Your task to perform on an android device: Open Android settings Image 0: 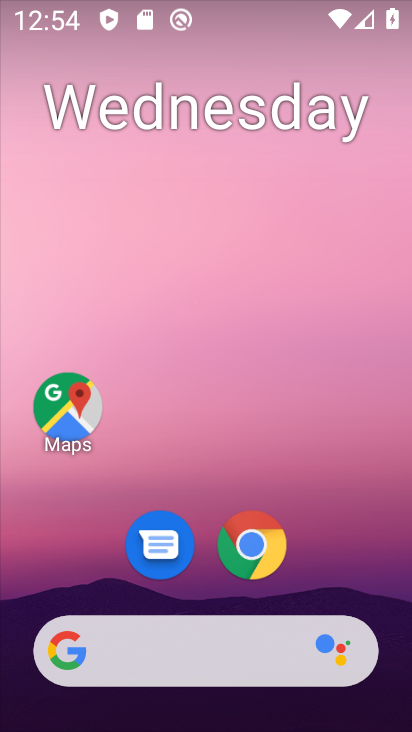
Step 0: drag from (221, 594) to (250, 272)
Your task to perform on an android device: Open Android settings Image 1: 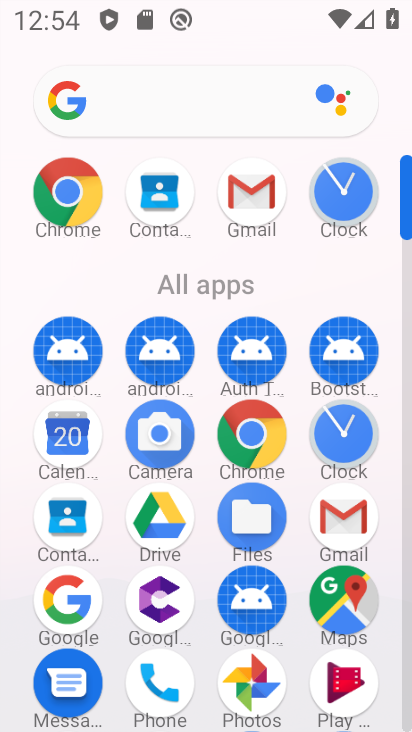
Step 1: drag from (214, 631) to (192, 282)
Your task to perform on an android device: Open Android settings Image 2: 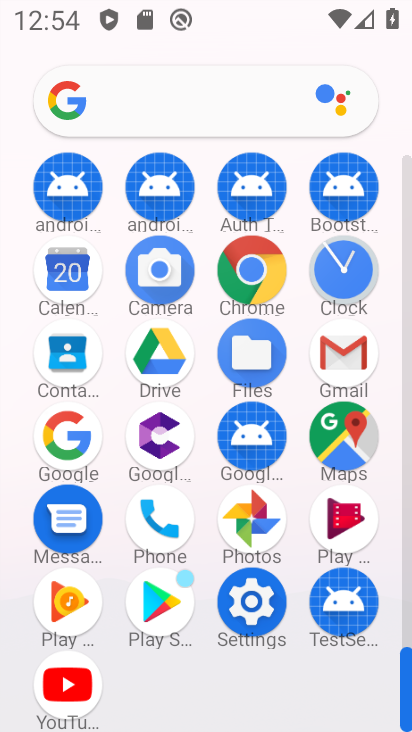
Step 2: click (252, 602)
Your task to perform on an android device: Open Android settings Image 3: 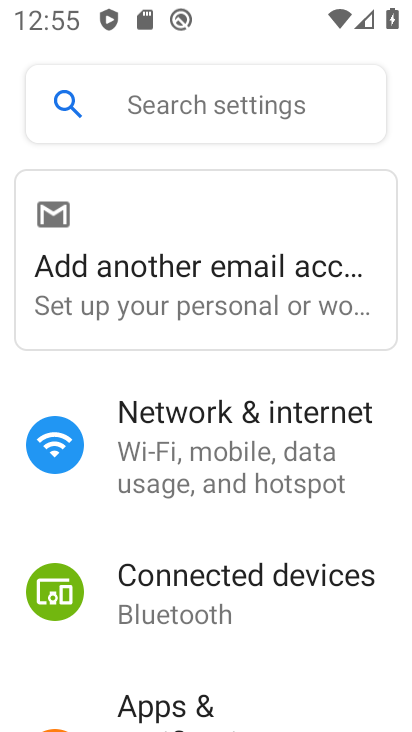
Step 3: drag from (252, 626) to (256, 274)
Your task to perform on an android device: Open Android settings Image 4: 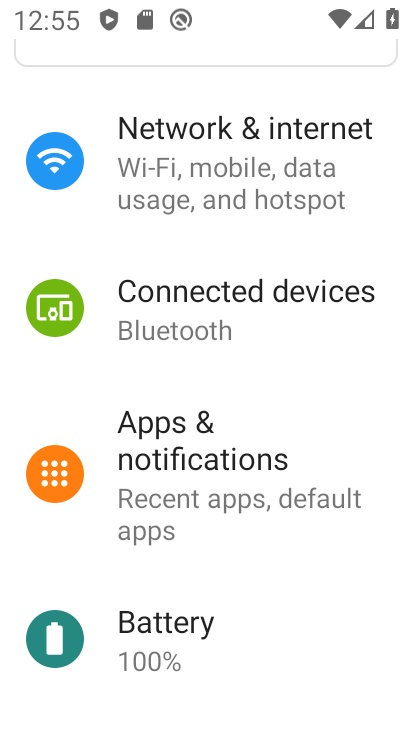
Step 4: drag from (213, 613) to (218, 345)
Your task to perform on an android device: Open Android settings Image 5: 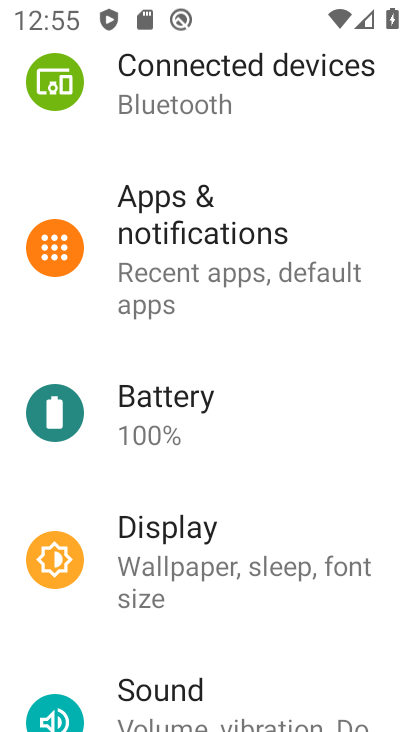
Step 5: drag from (245, 670) to (237, 416)
Your task to perform on an android device: Open Android settings Image 6: 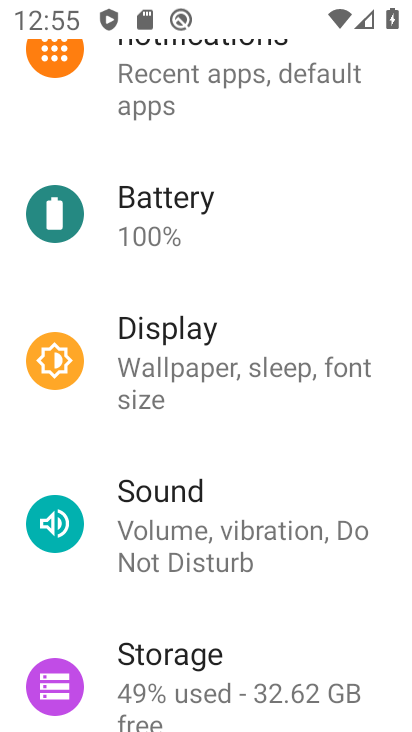
Step 6: drag from (249, 664) to (250, 373)
Your task to perform on an android device: Open Android settings Image 7: 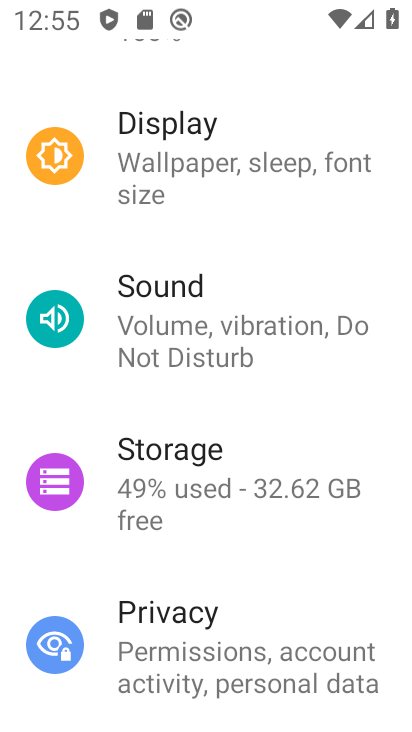
Step 7: drag from (225, 608) to (270, 297)
Your task to perform on an android device: Open Android settings Image 8: 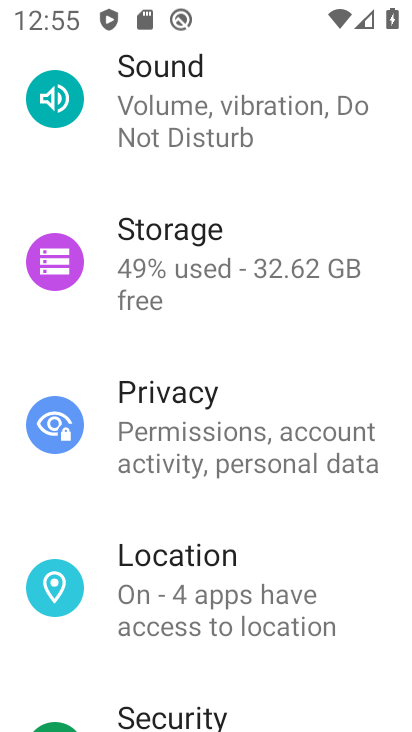
Step 8: drag from (235, 672) to (278, 384)
Your task to perform on an android device: Open Android settings Image 9: 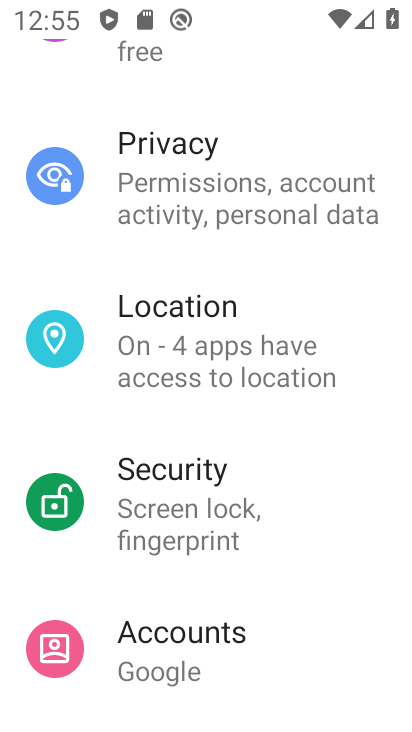
Step 9: drag from (239, 640) to (256, 430)
Your task to perform on an android device: Open Android settings Image 10: 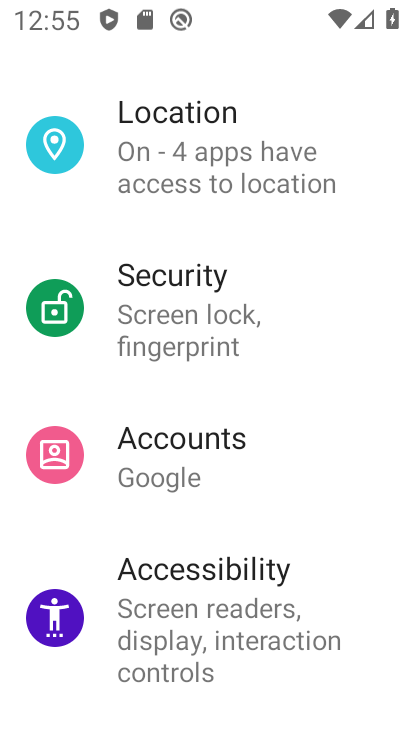
Step 10: drag from (262, 640) to (248, 370)
Your task to perform on an android device: Open Android settings Image 11: 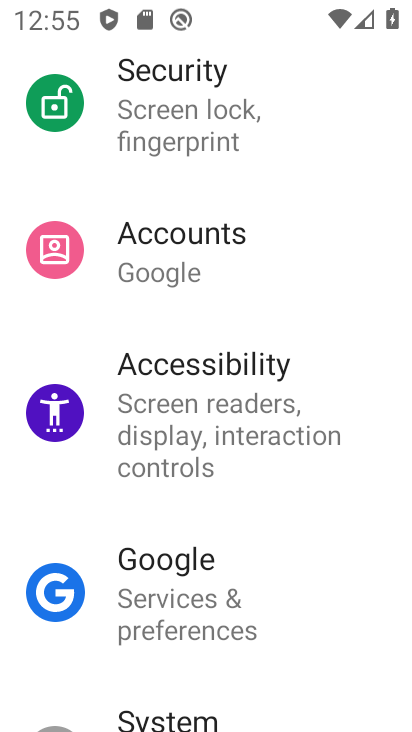
Step 11: drag from (255, 648) to (285, 410)
Your task to perform on an android device: Open Android settings Image 12: 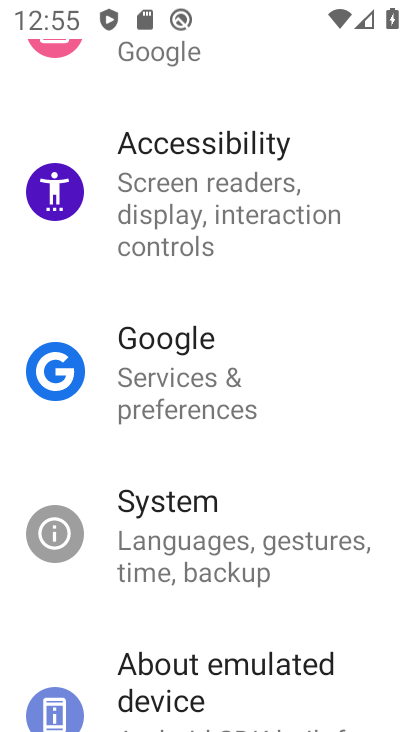
Step 12: drag from (210, 656) to (255, 371)
Your task to perform on an android device: Open Android settings Image 13: 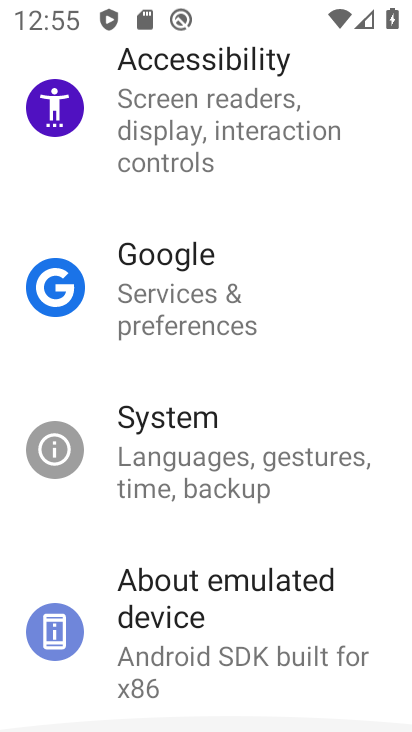
Step 13: click (230, 637)
Your task to perform on an android device: Open Android settings Image 14: 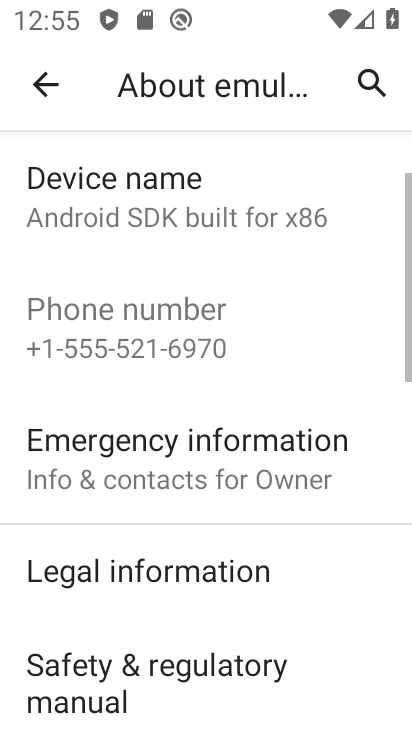
Step 14: drag from (225, 587) to (238, 199)
Your task to perform on an android device: Open Android settings Image 15: 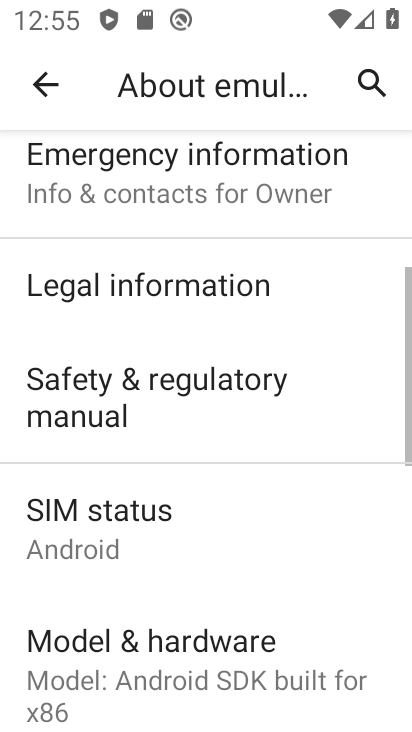
Step 15: drag from (240, 563) to (258, 290)
Your task to perform on an android device: Open Android settings Image 16: 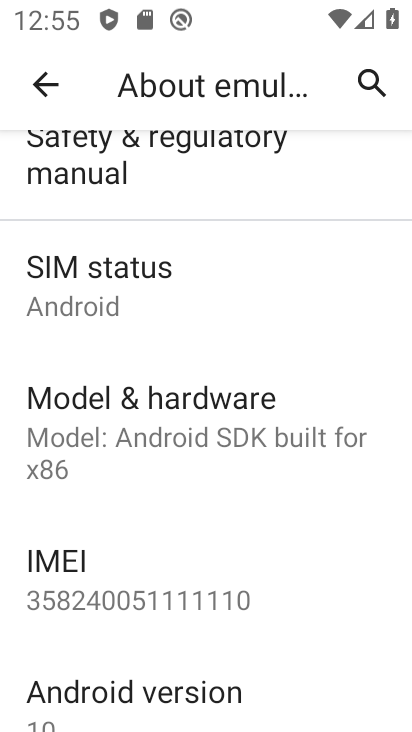
Step 16: drag from (196, 582) to (268, 281)
Your task to perform on an android device: Open Android settings Image 17: 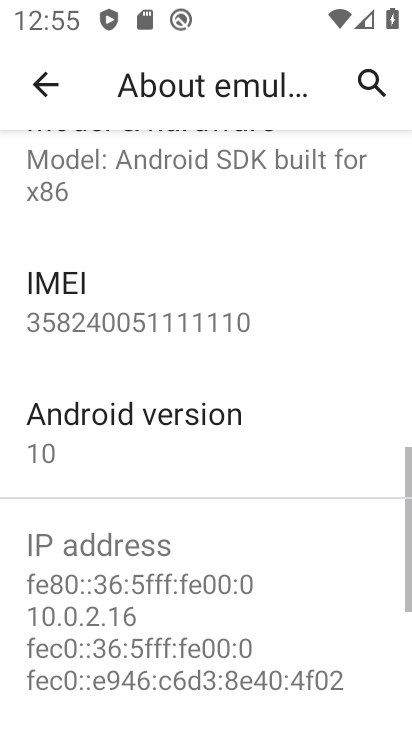
Step 17: click (87, 449)
Your task to perform on an android device: Open Android settings Image 18: 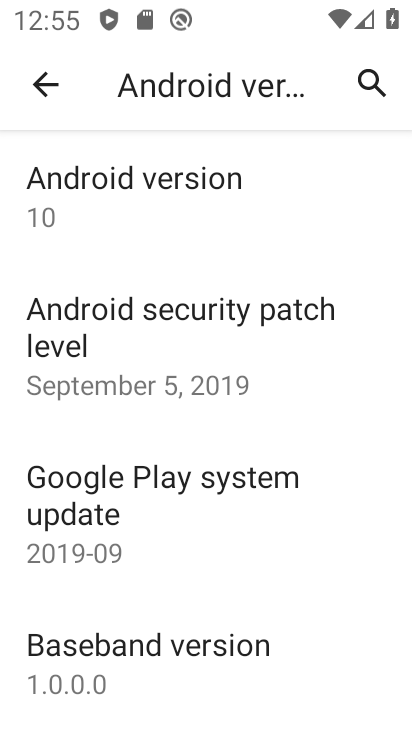
Step 18: task complete